Your task to perform on an android device: Show me productivity apps on the Play Store Image 0: 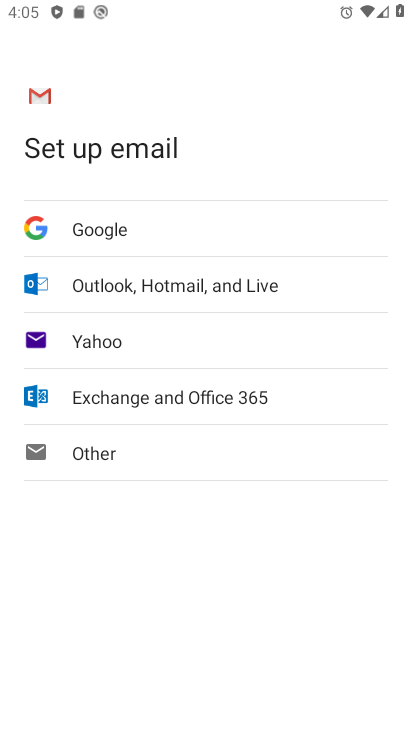
Step 0: press home button
Your task to perform on an android device: Show me productivity apps on the Play Store Image 1: 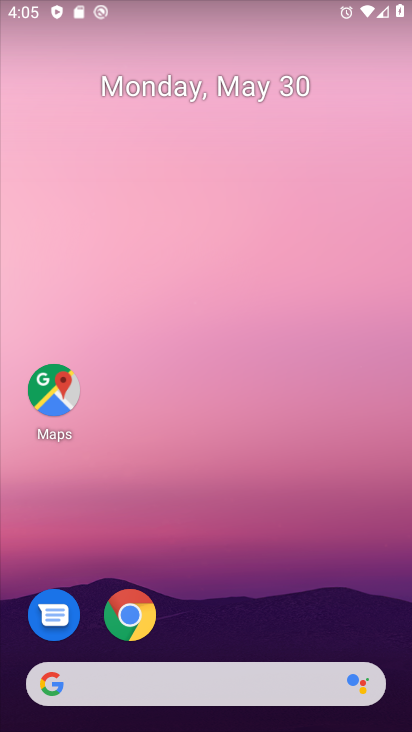
Step 1: drag from (237, 557) to (186, 40)
Your task to perform on an android device: Show me productivity apps on the Play Store Image 2: 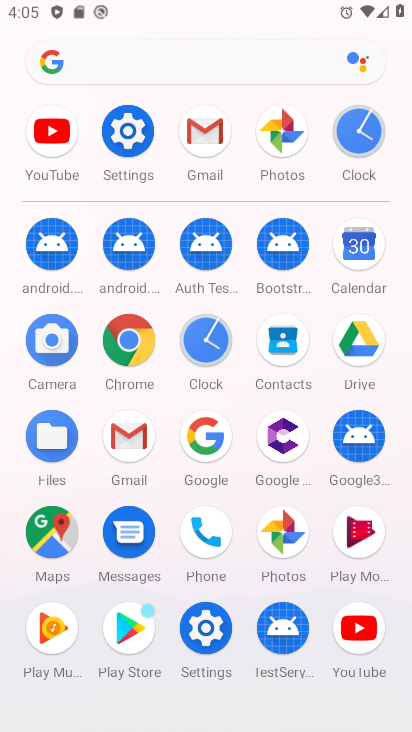
Step 2: drag from (159, 431) to (171, 225)
Your task to perform on an android device: Show me productivity apps on the Play Store Image 3: 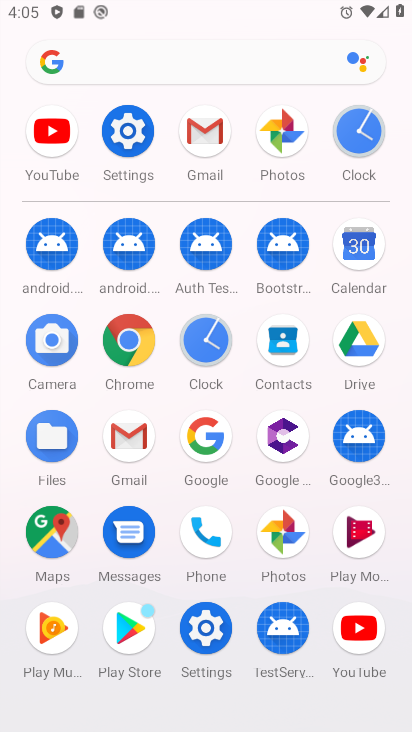
Step 3: click (126, 615)
Your task to perform on an android device: Show me productivity apps on the Play Store Image 4: 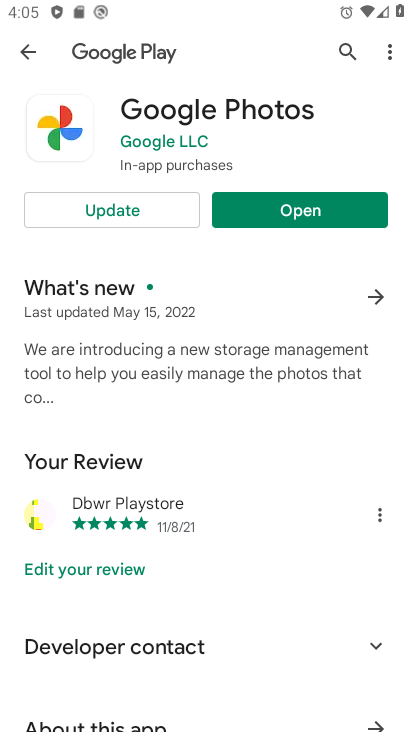
Step 4: click (26, 47)
Your task to perform on an android device: Show me productivity apps on the Play Store Image 5: 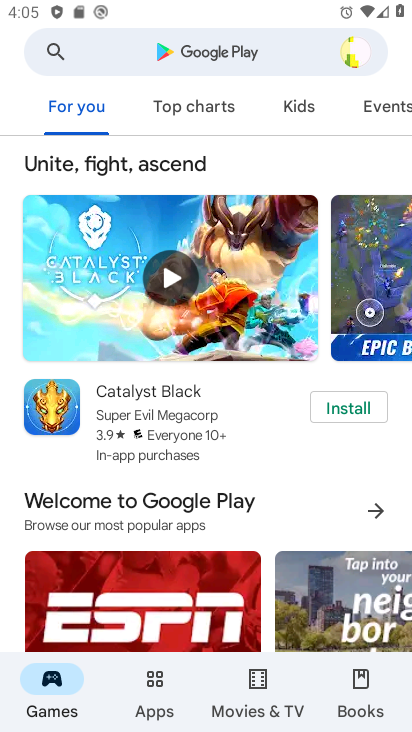
Step 5: click (152, 696)
Your task to perform on an android device: Show me productivity apps on the Play Store Image 6: 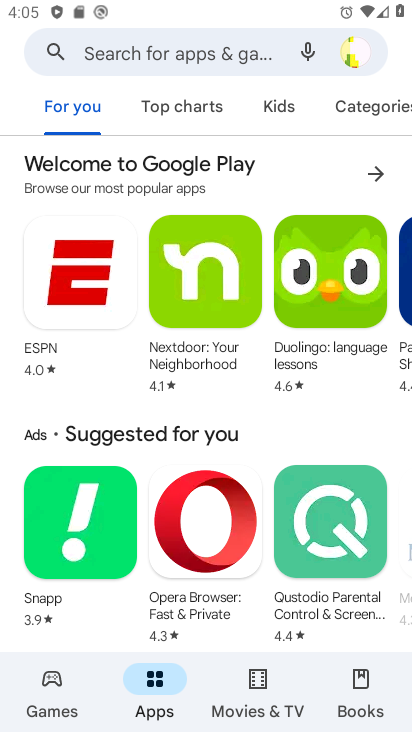
Step 6: click (391, 101)
Your task to perform on an android device: Show me productivity apps on the Play Store Image 7: 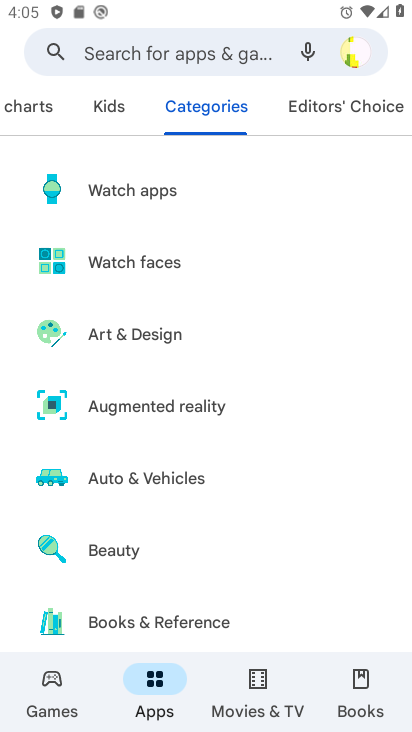
Step 7: drag from (278, 532) to (238, 140)
Your task to perform on an android device: Show me productivity apps on the Play Store Image 8: 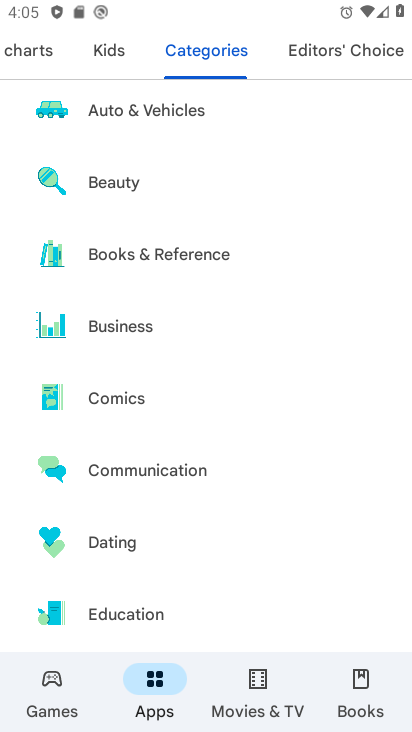
Step 8: drag from (264, 524) to (322, 7)
Your task to perform on an android device: Show me productivity apps on the Play Store Image 9: 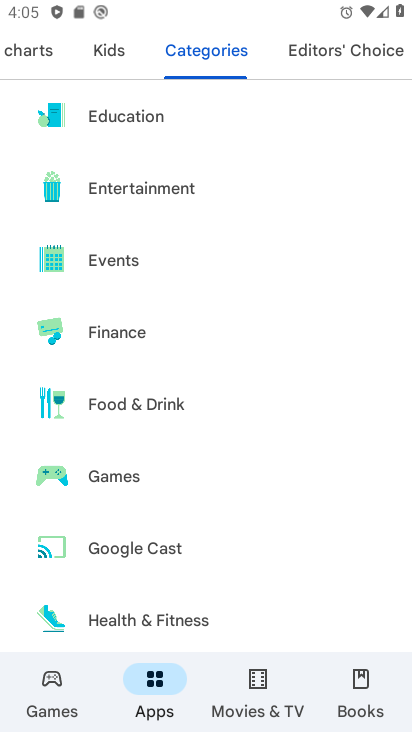
Step 9: drag from (284, 606) to (293, 0)
Your task to perform on an android device: Show me productivity apps on the Play Store Image 10: 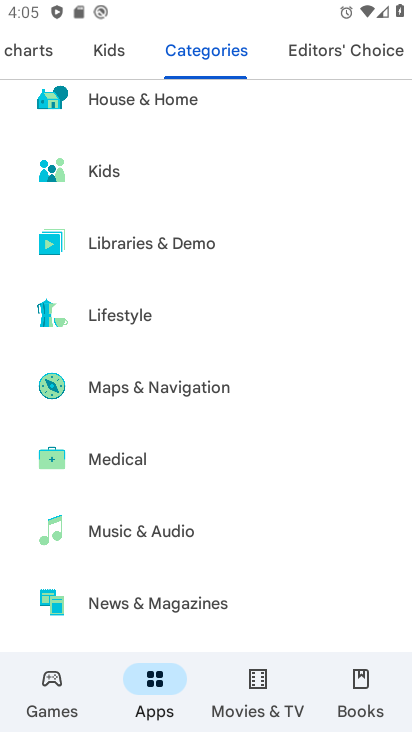
Step 10: drag from (215, 500) to (224, 182)
Your task to perform on an android device: Show me productivity apps on the Play Store Image 11: 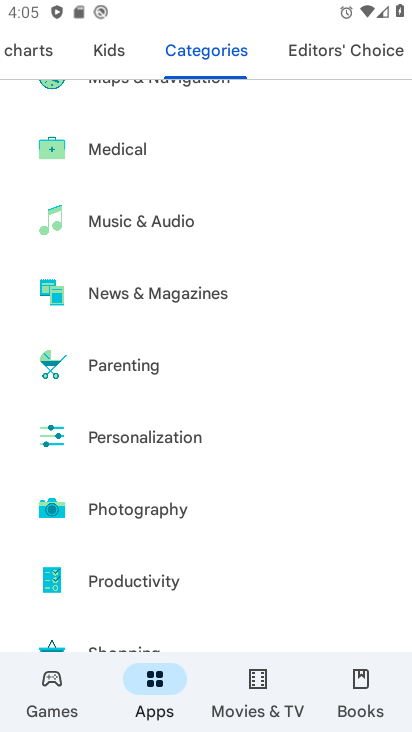
Step 11: click (185, 577)
Your task to perform on an android device: Show me productivity apps on the Play Store Image 12: 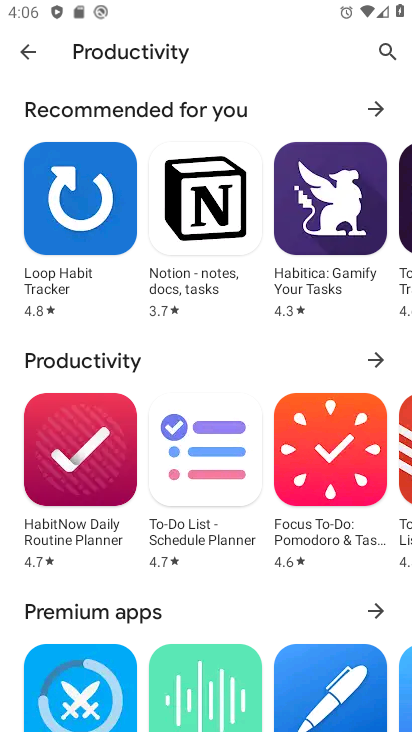
Step 12: click (362, 350)
Your task to perform on an android device: Show me productivity apps on the Play Store Image 13: 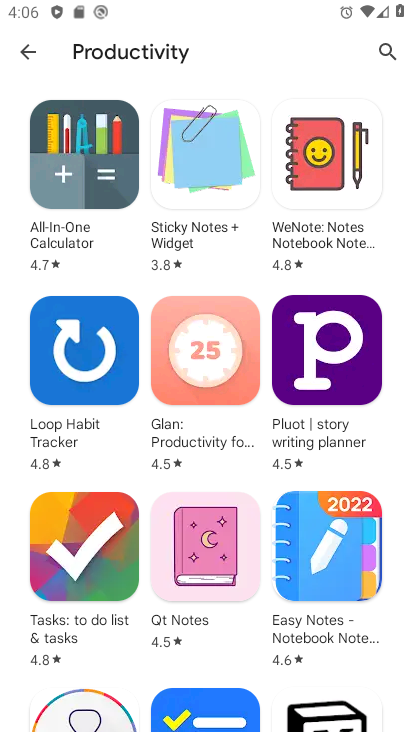
Step 13: task complete